Your task to perform on an android device: Show me the alarms in the clock app Image 0: 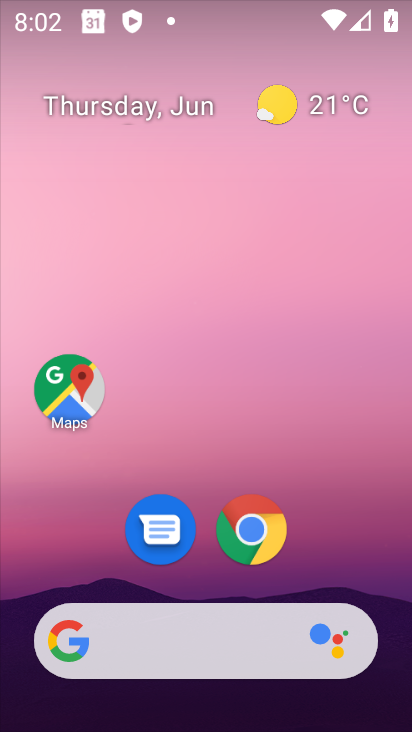
Step 0: drag from (387, 655) to (372, 127)
Your task to perform on an android device: Show me the alarms in the clock app Image 1: 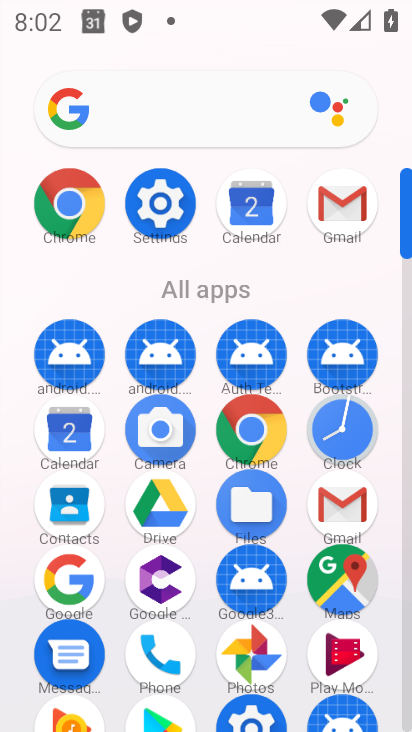
Step 1: click (348, 446)
Your task to perform on an android device: Show me the alarms in the clock app Image 2: 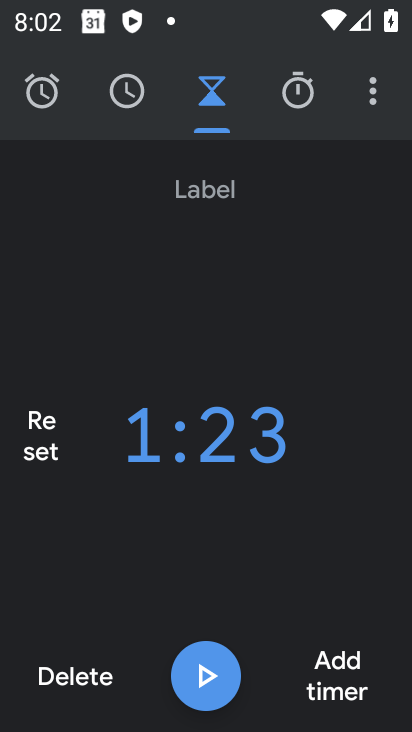
Step 2: click (32, 105)
Your task to perform on an android device: Show me the alarms in the clock app Image 3: 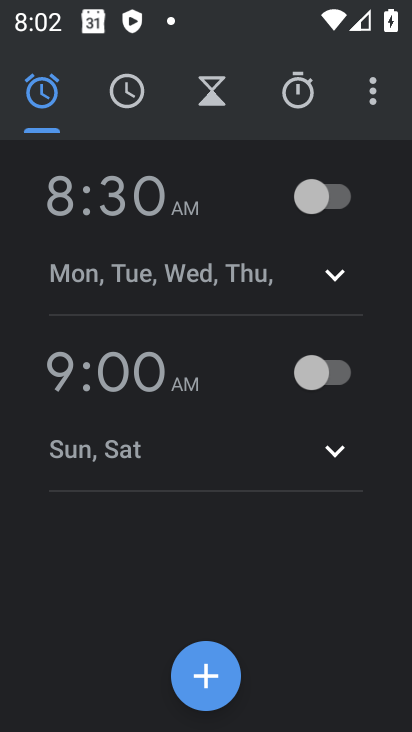
Step 3: task complete